Your task to perform on an android device: turn on wifi Image 0: 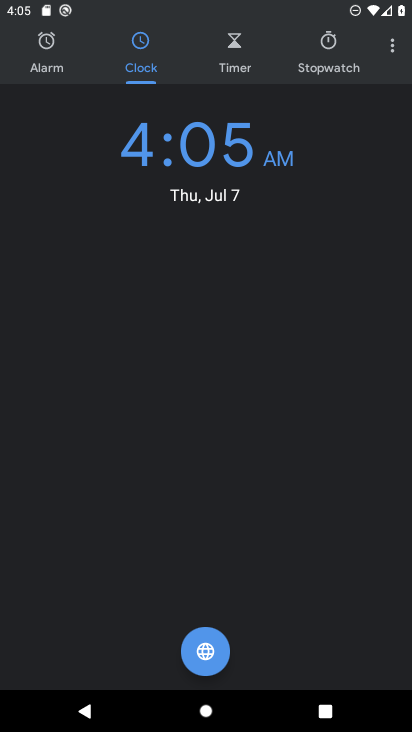
Step 0: press home button
Your task to perform on an android device: turn on wifi Image 1: 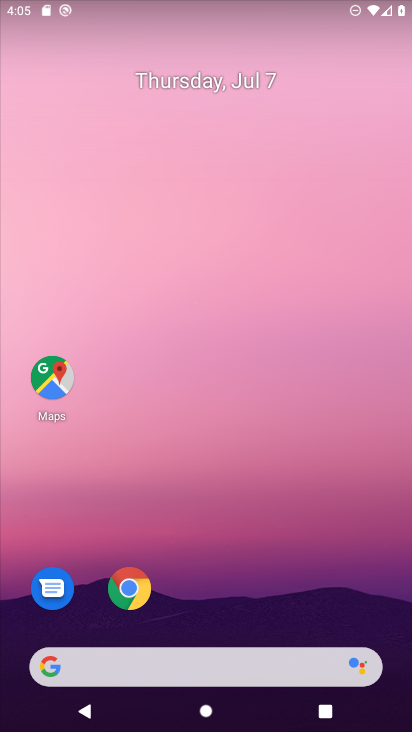
Step 1: drag from (293, 593) to (214, 186)
Your task to perform on an android device: turn on wifi Image 2: 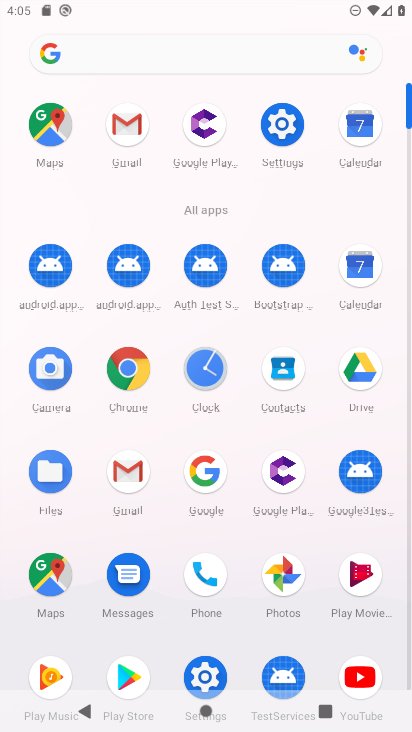
Step 2: click (287, 127)
Your task to perform on an android device: turn on wifi Image 3: 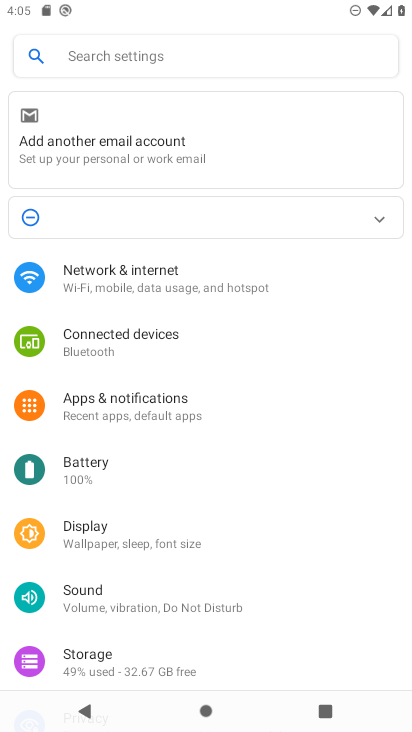
Step 3: click (273, 289)
Your task to perform on an android device: turn on wifi Image 4: 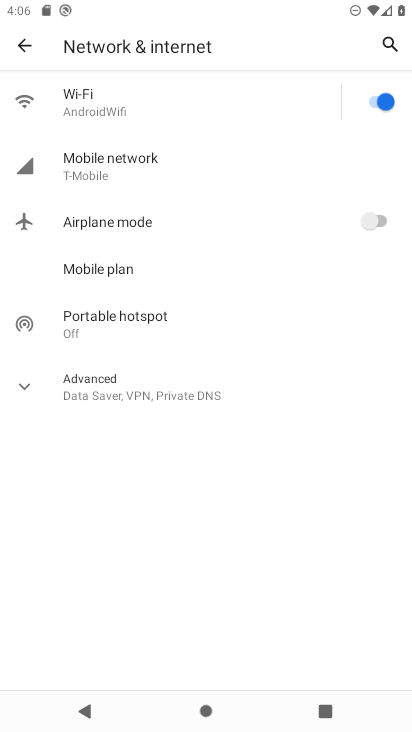
Step 4: task complete